Your task to perform on an android device: Open Google Maps Image 0: 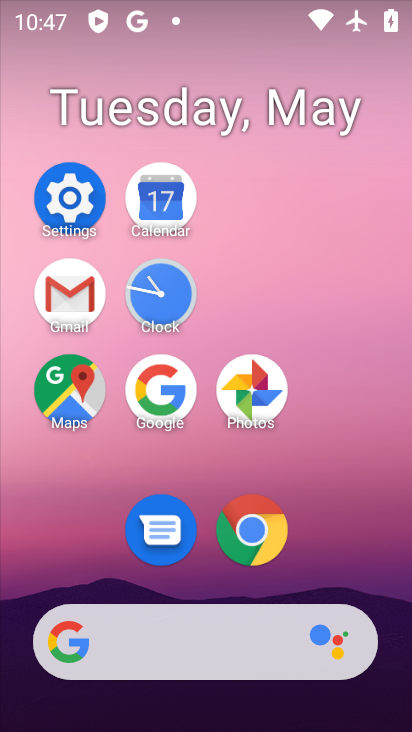
Step 0: click (68, 392)
Your task to perform on an android device: Open Google Maps Image 1: 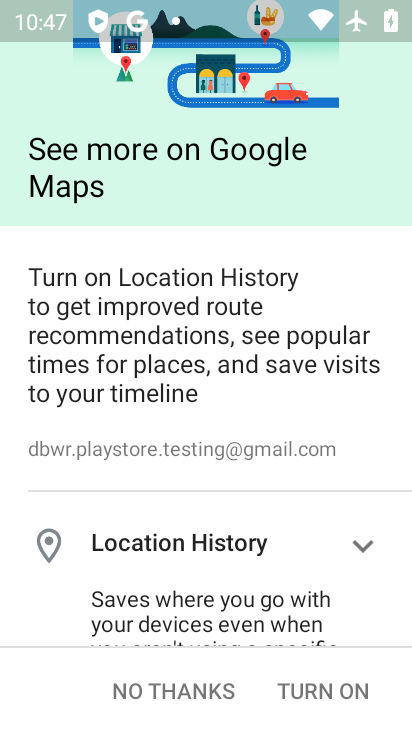
Step 1: task complete